Your task to perform on an android device: Turn off the flashlight Image 0: 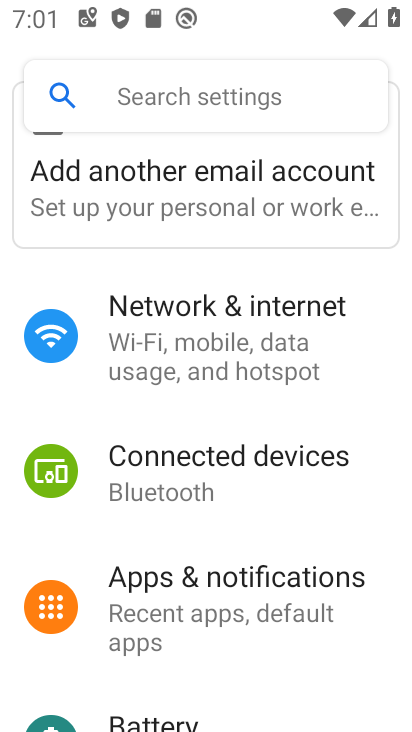
Step 0: click (230, 578)
Your task to perform on an android device: Turn off the flashlight Image 1: 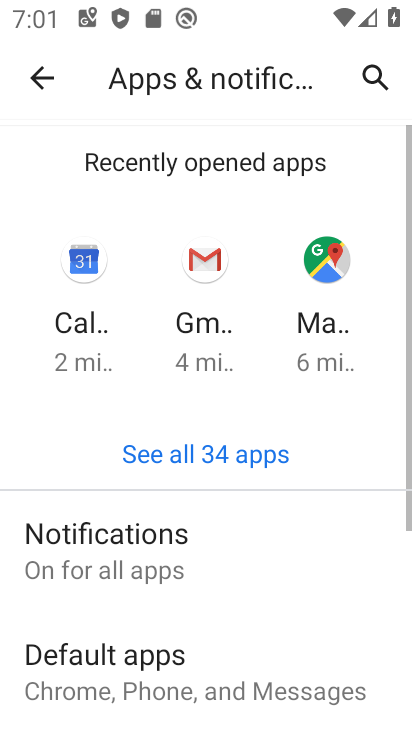
Step 1: task complete